Your task to perform on an android device: Open ESPN.com Image 0: 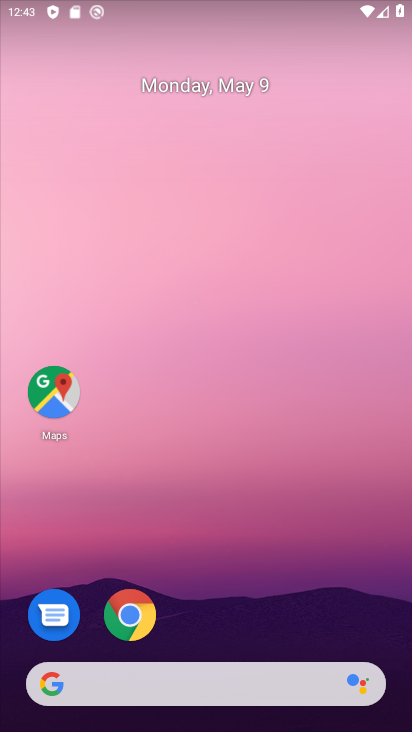
Step 0: click (126, 610)
Your task to perform on an android device: Open ESPN.com Image 1: 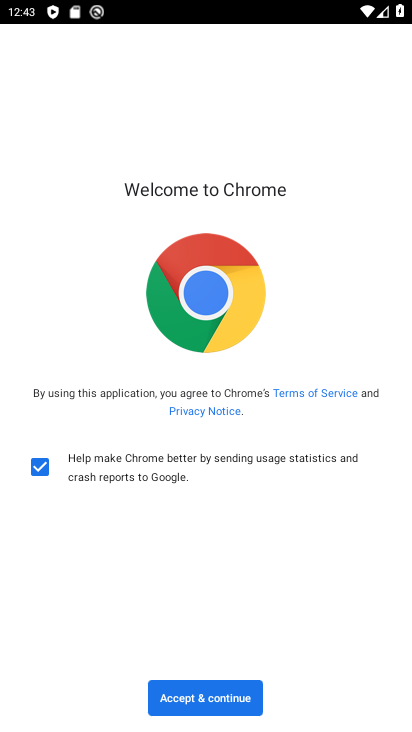
Step 1: click (200, 695)
Your task to perform on an android device: Open ESPN.com Image 2: 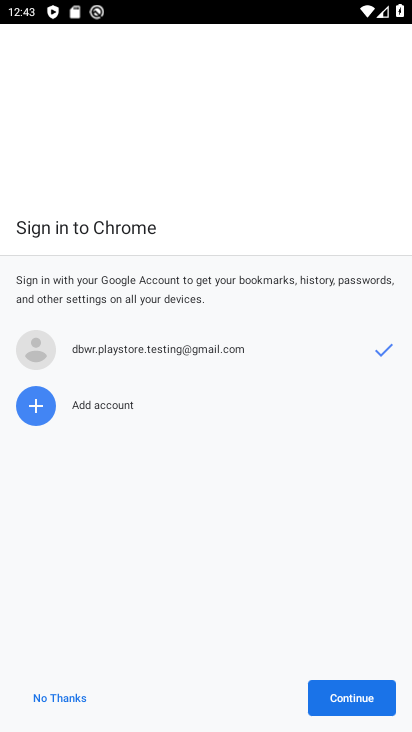
Step 2: click (345, 697)
Your task to perform on an android device: Open ESPN.com Image 3: 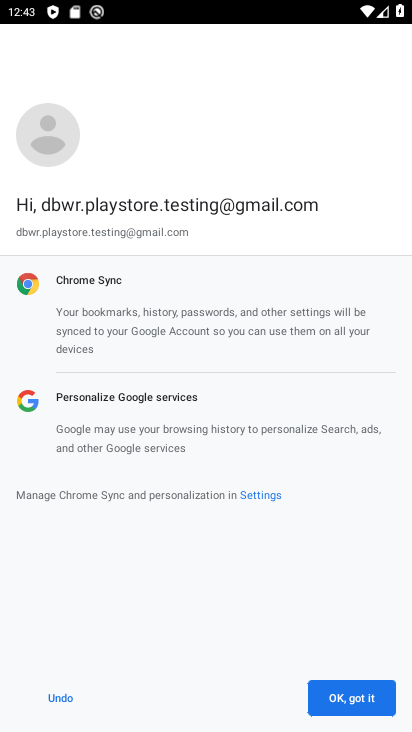
Step 3: click (345, 697)
Your task to perform on an android device: Open ESPN.com Image 4: 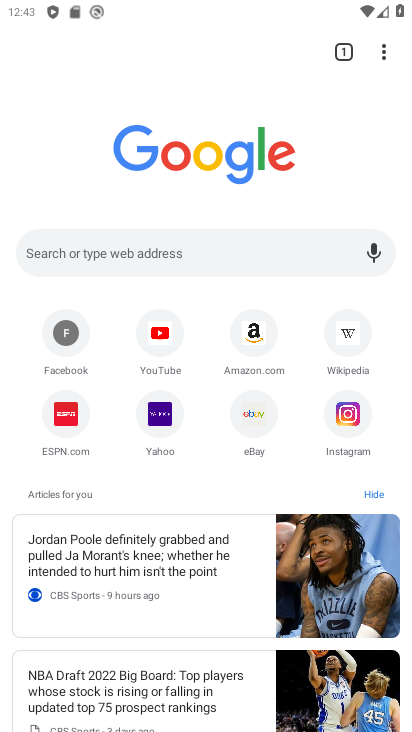
Step 4: click (87, 250)
Your task to perform on an android device: Open ESPN.com Image 5: 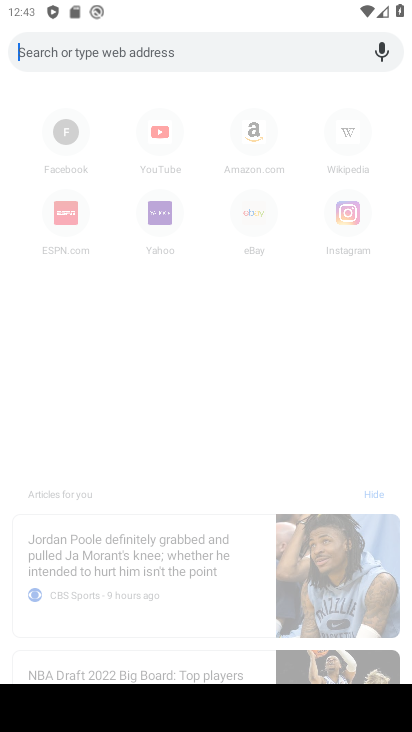
Step 5: type "espn.com"
Your task to perform on an android device: Open ESPN.com Image 6: 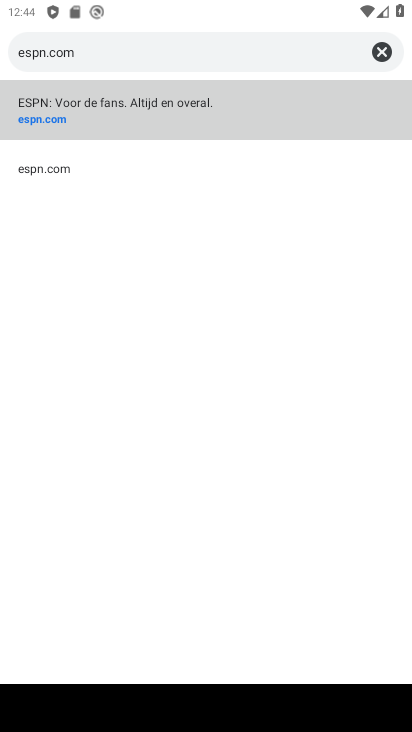
Step 6: click (45, 116)
Your task to perform on an android device: Open ESPN.com Image 7: 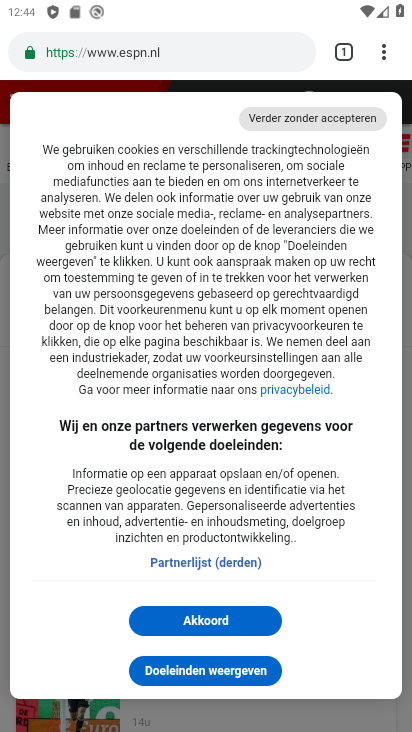
Step 7: task complete